Your task to perform on an android device: check the backup settings in the google photos Image 0: 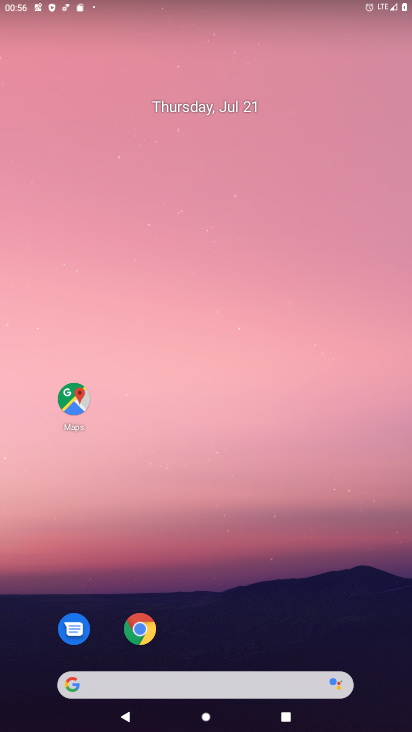
Step 0: drag from (272, 452) to (237, 134)
Your task to perform on an android device: check the backup settings in the google photos Image 1: 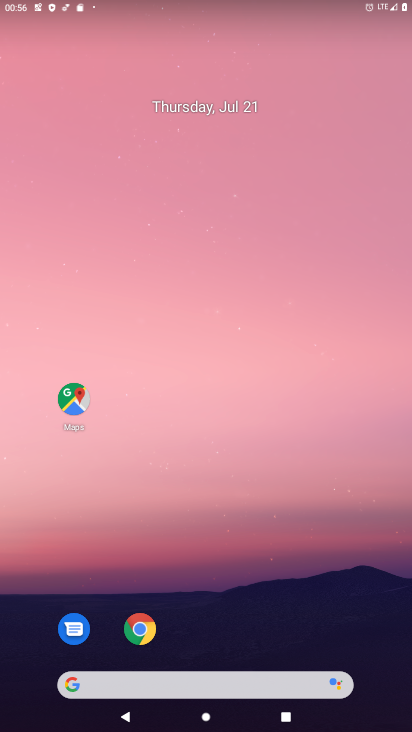
Step 1: drag from (263, 365) to (234, 89)
Your task to perform on an android device: check the backup settings in the google photos Image 2: 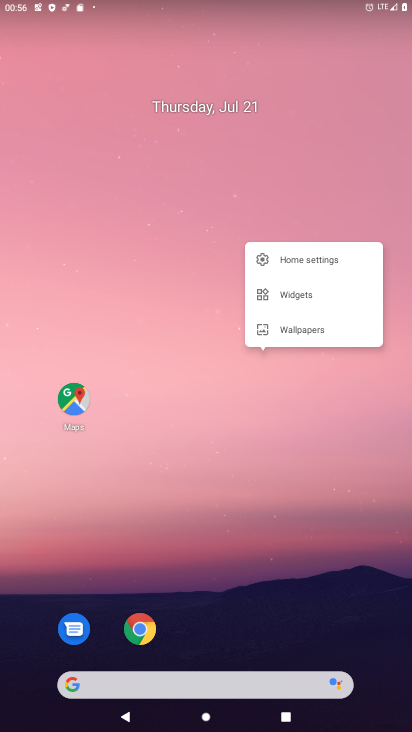
Step 2: click (167, 282)
Your task to perform on an android device: check the backup settings in the google photos Image 3: 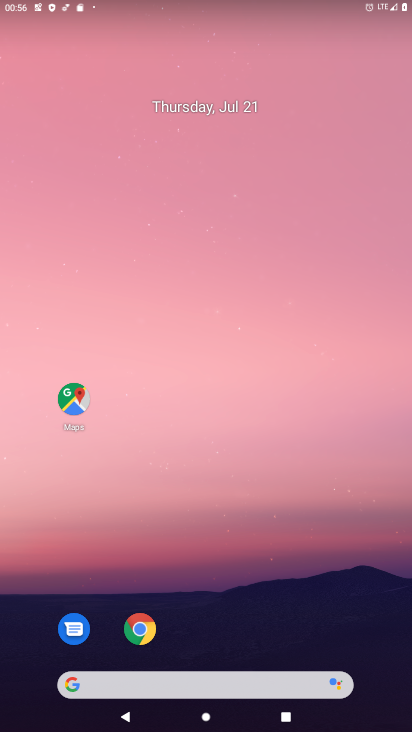
Step 3: drag from (342, 625) to (272, 54)
Your task to perform on an android device: check the backup settings in the google photos Image 4: 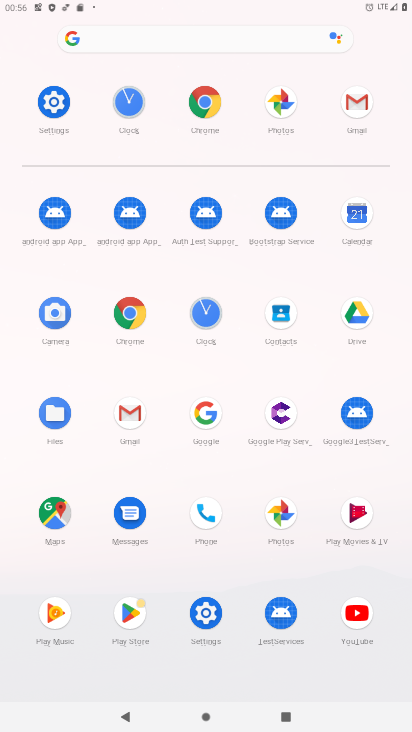
Step 4: click (287, 510)
Your task to perform on an android device: check the backup settings in the google photos Image 5: 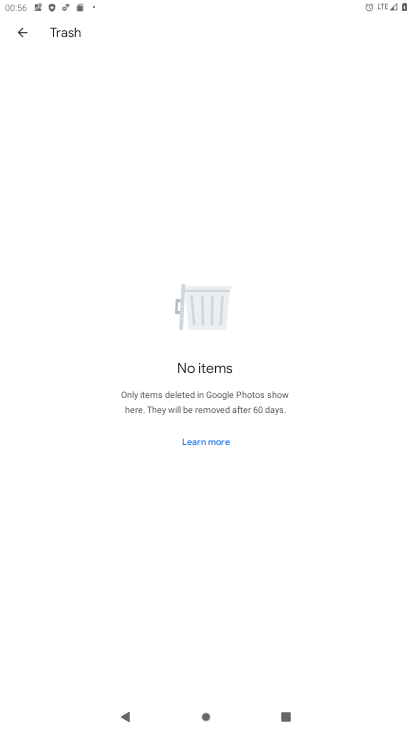
Step 5: click (23, 26)
Your task to perform on an android device: check the backup settings in the google photos Image 6: 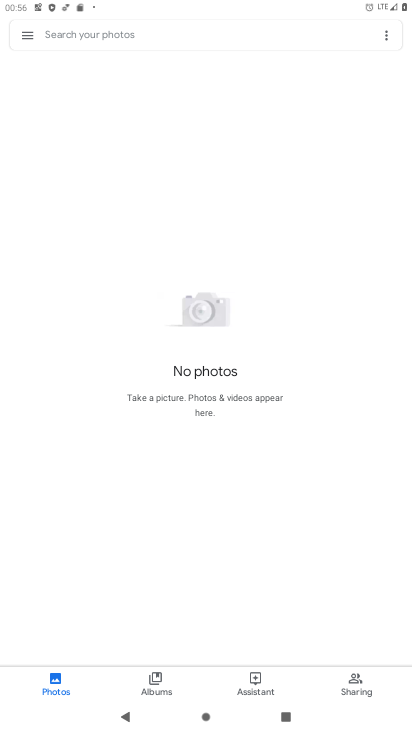
Step 6: click (28, 34)
Your task to perform on an android device: check the backup settings in the google photos Image 7: 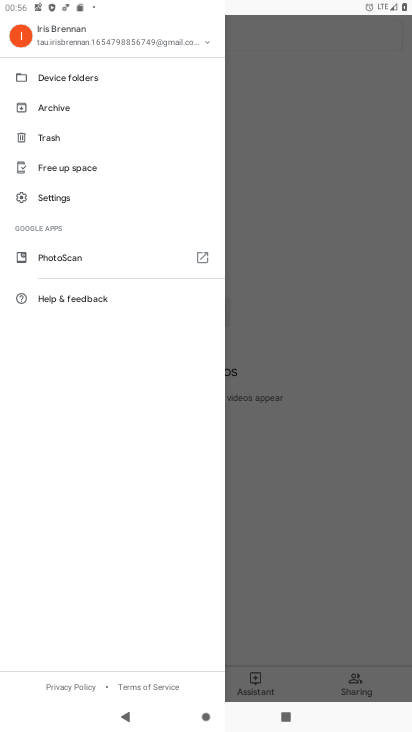
Step 7: click (56, 199)
Your task to perform on an android device: check the backup settings in the google photos Image 8: 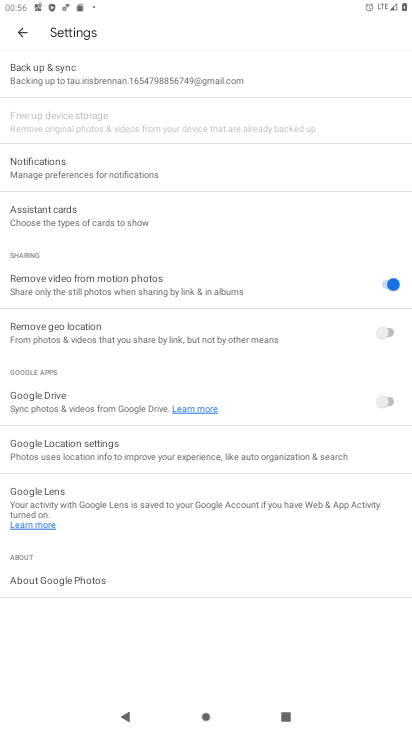
Step 8: click (149, 79)
Your task to perform on an android device: check the backup settings in the google photos Image 9: 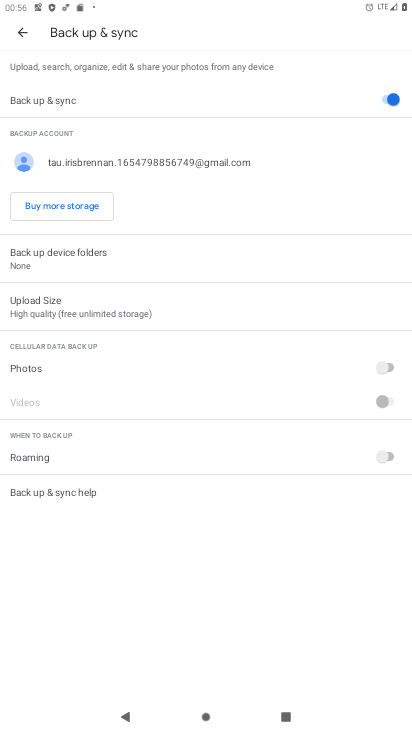
Step 9: task complete